Your task to perform on an android device: Open Chrome and go to settings Image 0: 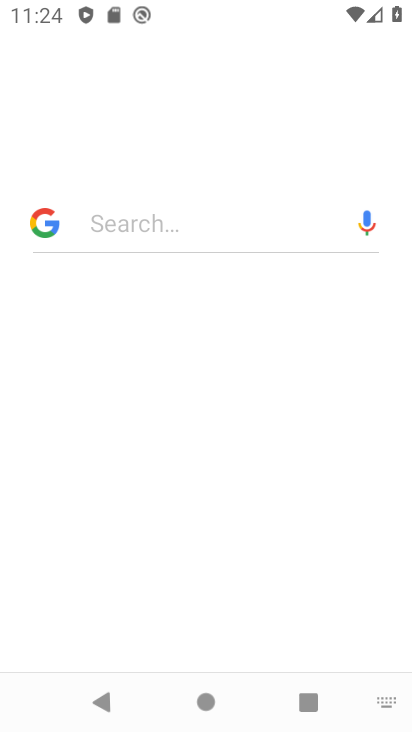
Step 0: press home button
Your task to perform on an android device: Open Chrome and go to settings Image 1: 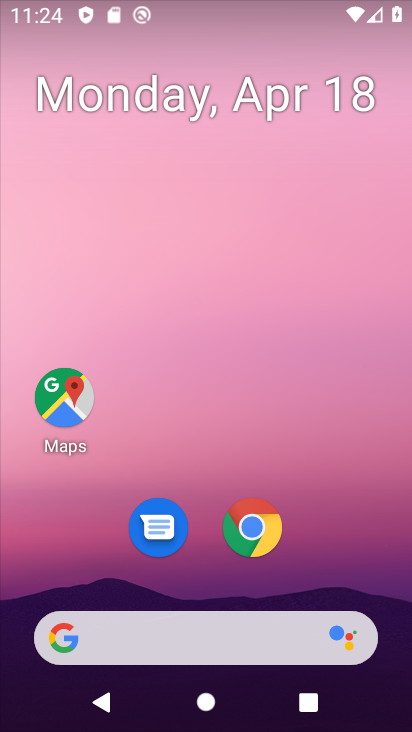
Step 1: click (253, 534)
Your task to perform on an android device: Open Chrome and go to settings Image 2: 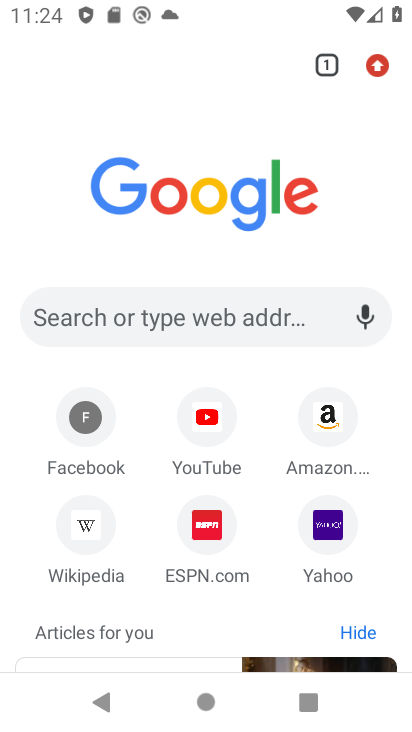
Step 2: click (380, 57)
Your task to perform on an android device: Open Chrome and go to settings Image 3: 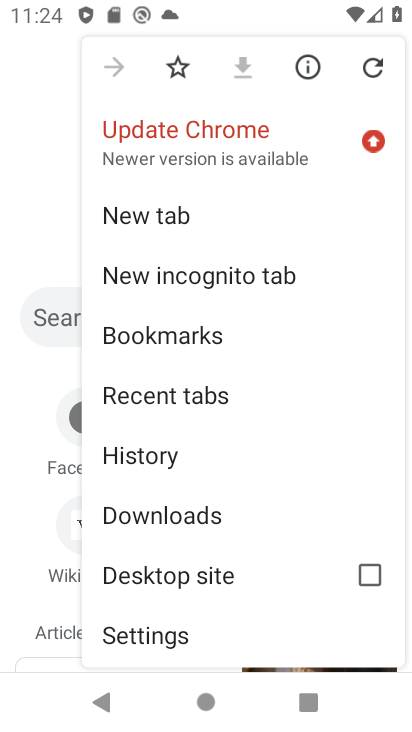
Step 3: click (135, 647)
Your task to perform on an android device: Open Chrome and go to settings Image 4: 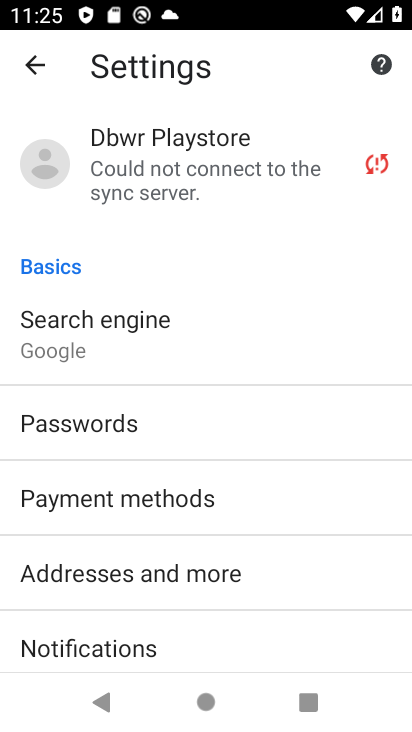
Step 4: task complete